Your task to perform on an android device: Go to eBay Image 0: 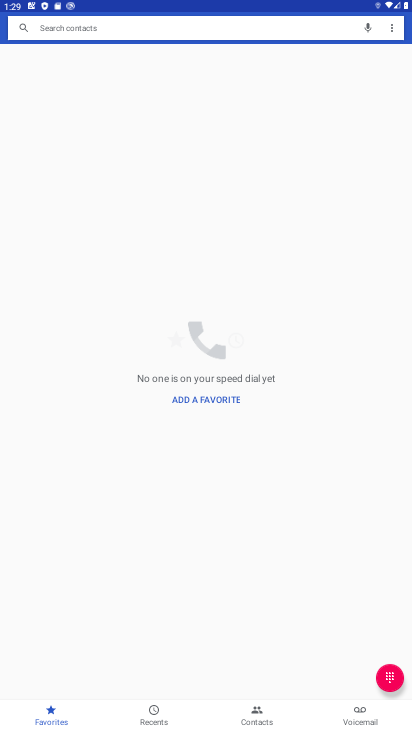
Step 0: press home button
Your task to perform on an android device: Go to eBay Image 1: 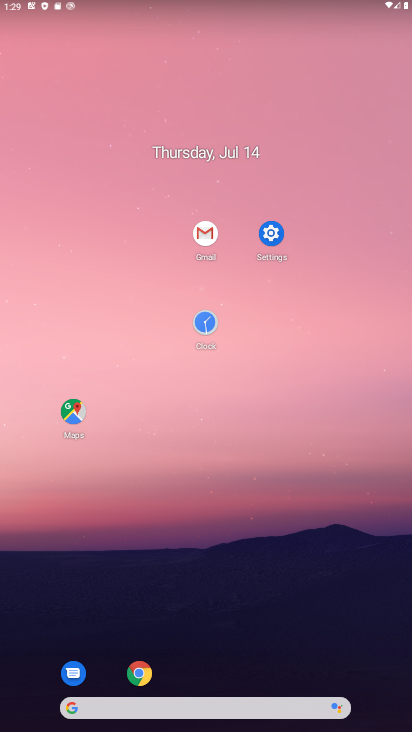
Step 1: click (141, 675)
Your task to perform on an android device: Go to eBay Image 2: 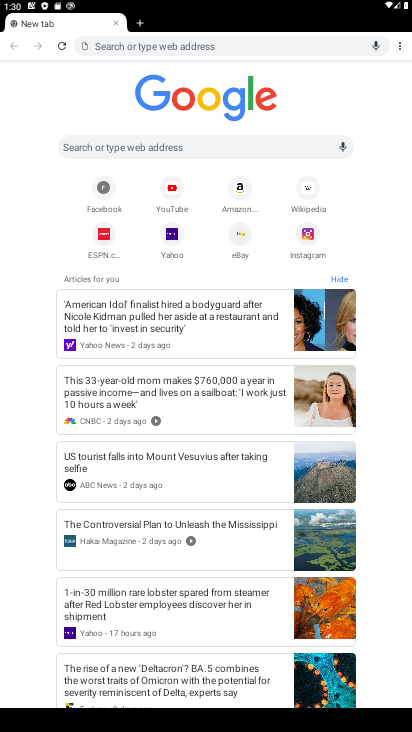
Step 2: click (141, 24)
Your task to perform on an android device: Go to eBay Image 3: 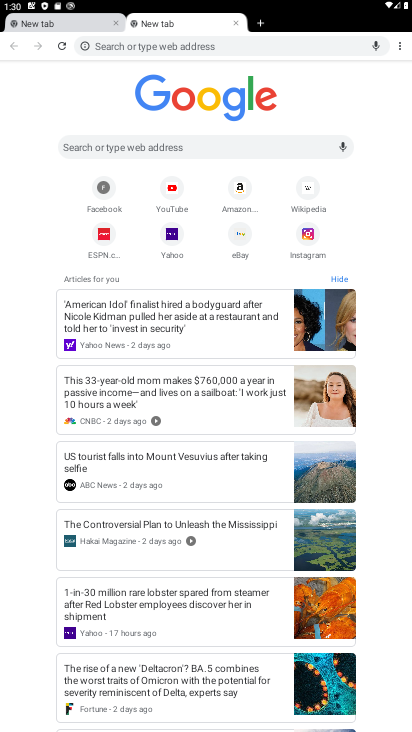
Step 3: click (247, 236)
Your task to perform on an android device: Go to eBay Image 4: 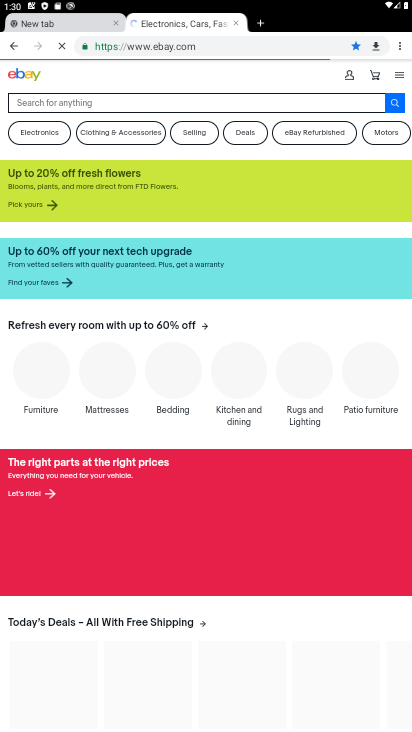
Step 4: task complete